Your task to perform on an android device: Search for Italian restaurants on Maps Image 0: 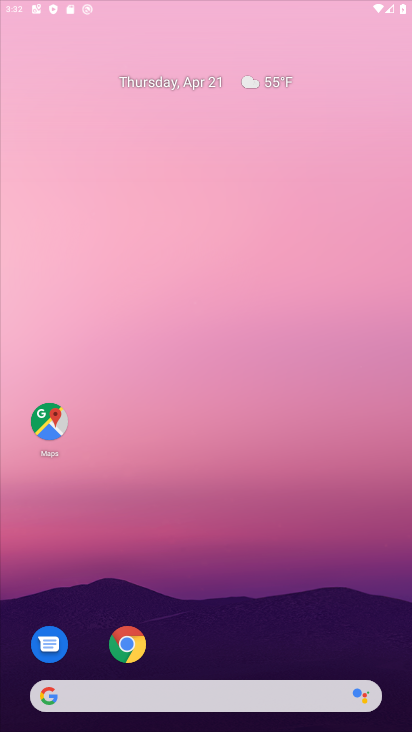
Step 0: drag from (214, 675) to (200, 48)
Your task to perform on an android device: Search for Italian restaurants on Maps Image 1: 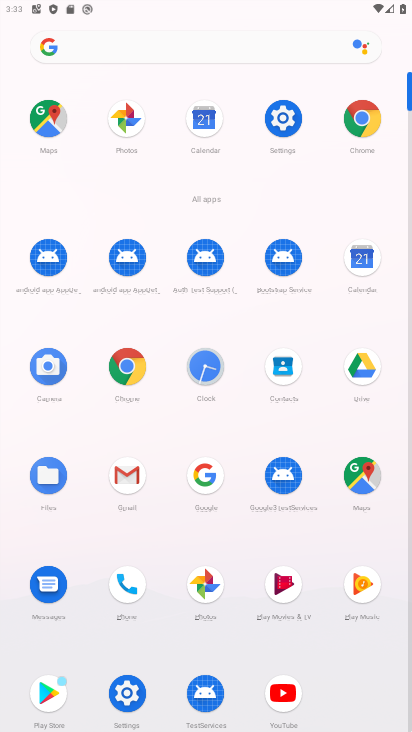
Step 1: click (365, 480)
Your task to perform on an android device: Search for Italian restaurants on Maps Image 2: 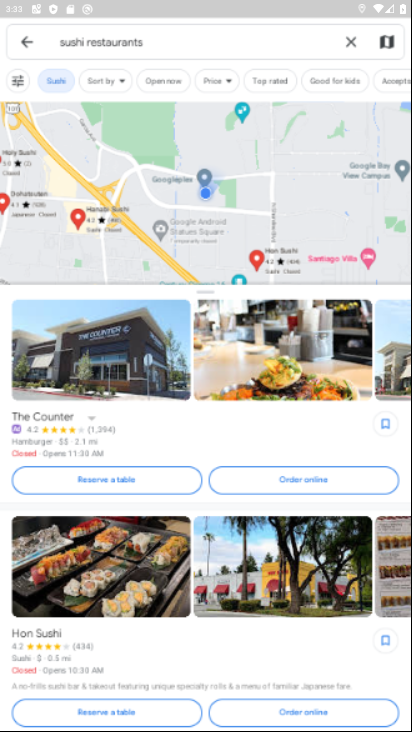
Step 2: click (343, 37)
Your task to perform on an android device: Search for Italian restaurants on Maps Image 3: 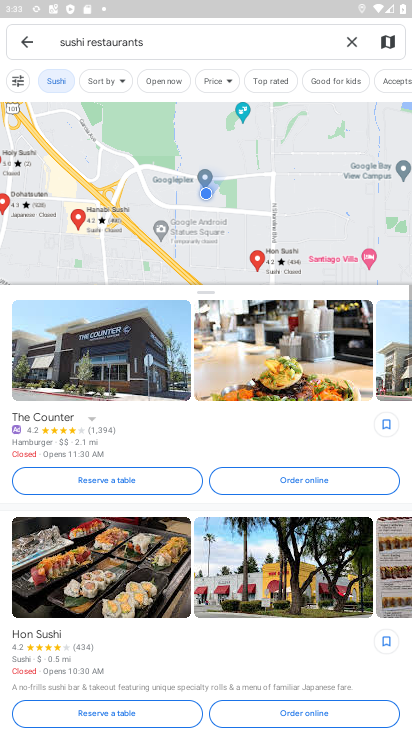
Step 3: click (345, 43)
Your task to perform on an android device: Search for Italian restaurants on Maps Image 4: 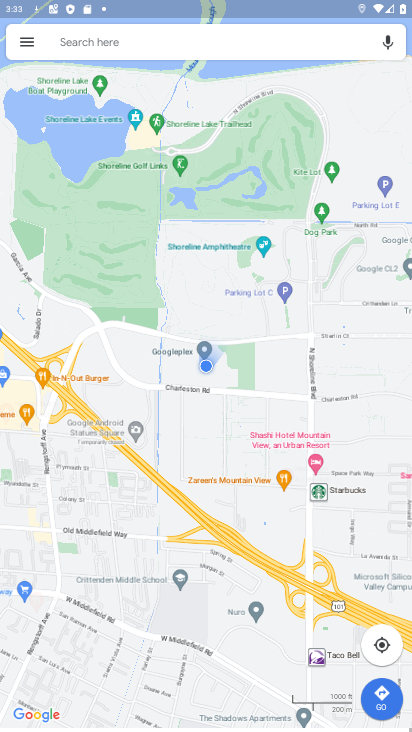
Step 4: click (158, 39)
Your task to perform on an android device: Search for Italian restaurants on Maps Image 5: 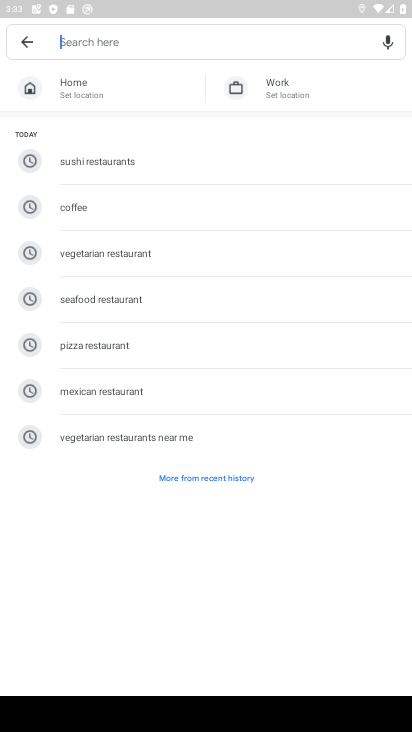
Step 5: type "italian"
Your task to perform on an android device: Search for Italian restaurants on Maps Image 6: 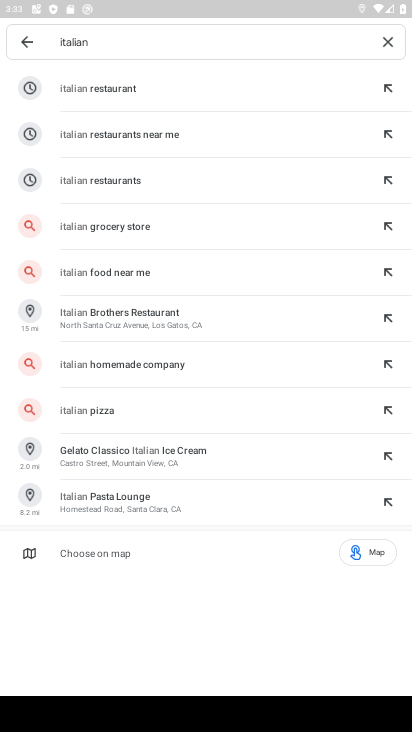
Step 6: click (83, 98)
Your task to perform on an android device: Search for Italian restaurants on Maps Image 7: 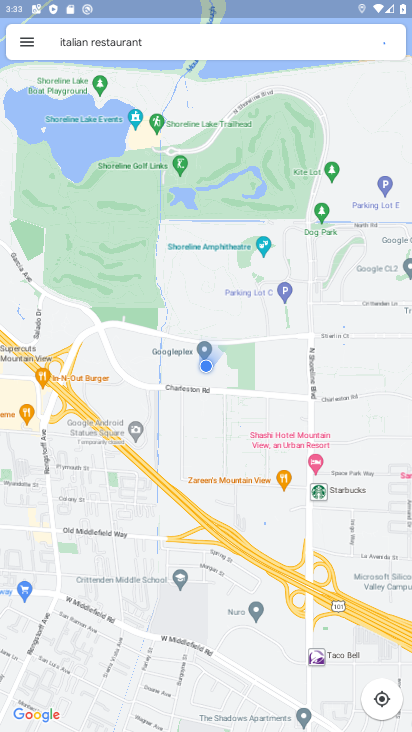
Step 7: task complete